Your task to perform on an android device: change alarm snooze length Image 0: 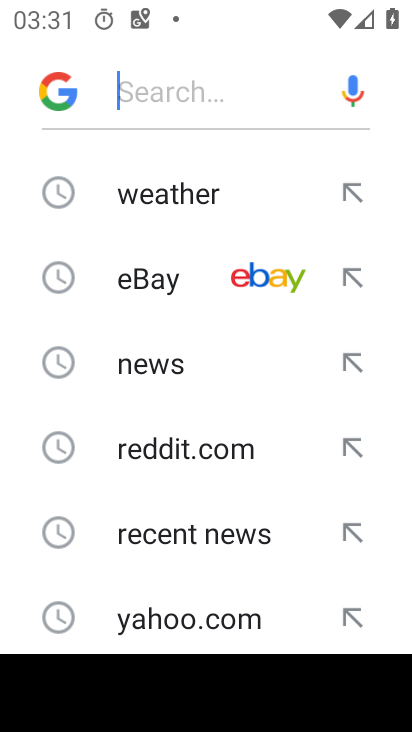
Step 0: press home button
Your task to perform on an android device: change alarm snooze length Image 1: 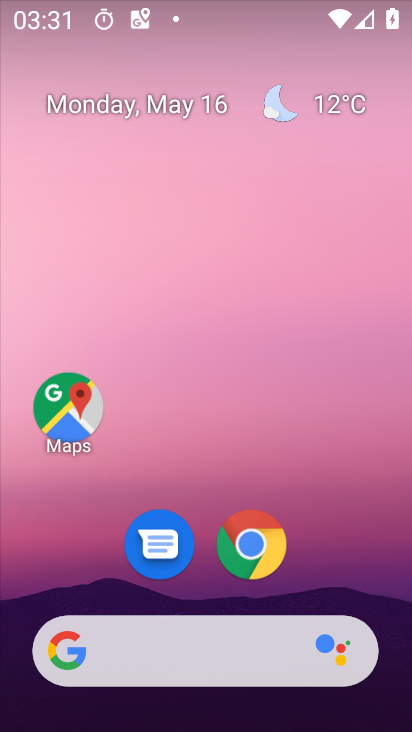
Step 1: drag from (189, 690) to (216, 117)
Your task to perform on an android device: change alarm snooze length Image 2: 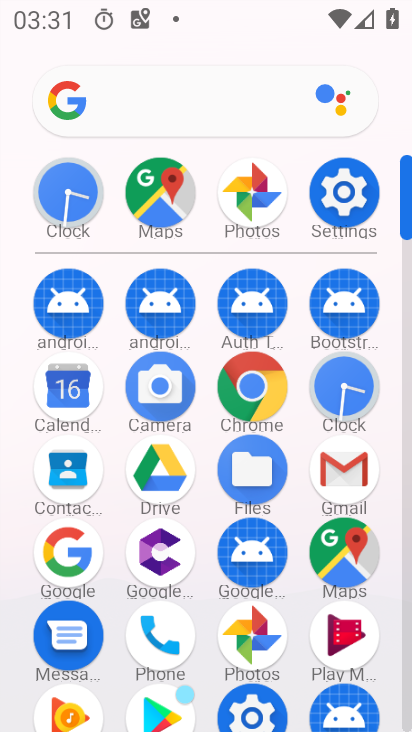
Step 2: click (348, 391)
Your task to perform on an android device: change alarm snooze length Image 3: 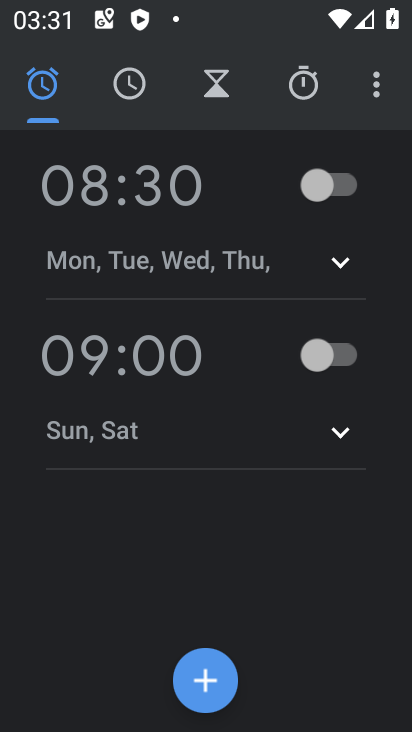
Step 3: click (378, 97)
Your task to perform on an android device: change alarm snooze length Image 4: 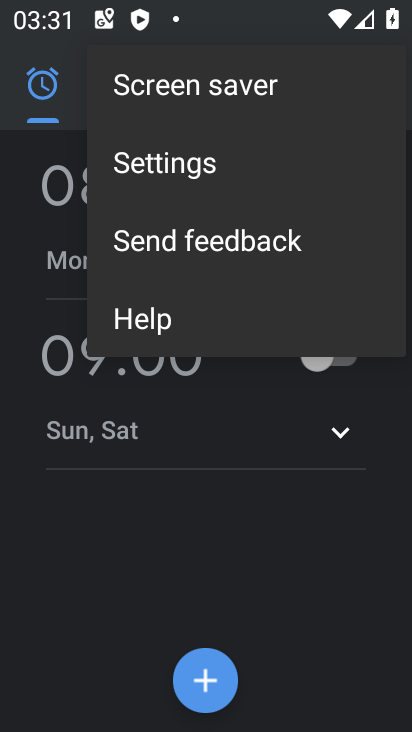
Step 4: click (180, 152)
Your task to perform on an android device: change alarm snooze length Image 5: 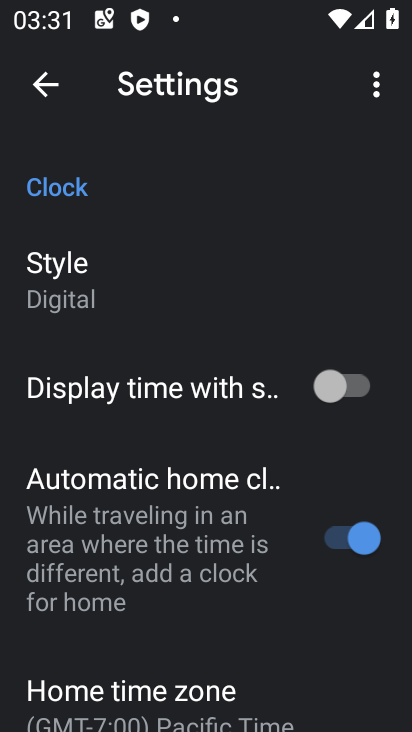
Step 5: drag from (140, 623) to (138, 207)
Your task to perform on an android device: change alarm snooze length Image 6: 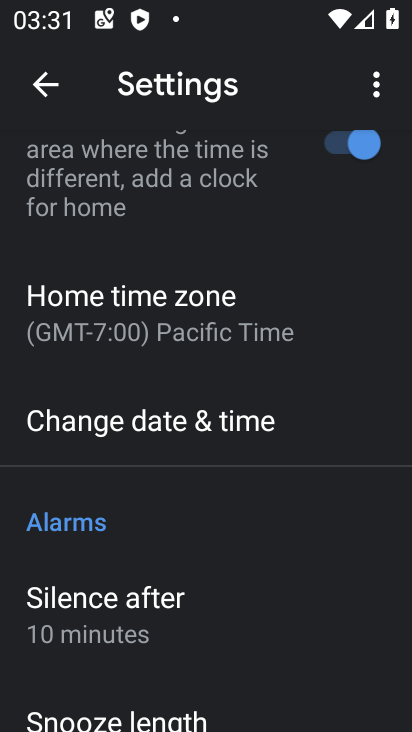
Step 6: drag from (198, 570) to (191, 239)
Your task to perform on an android device: change alarm snooze length Image 7: 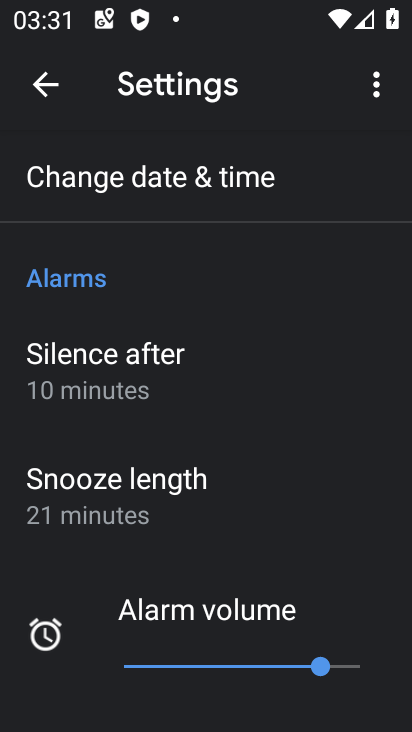
Step 7: click (130, 481)
Your task to perform on an android device: change alarm snooze length Image 8: 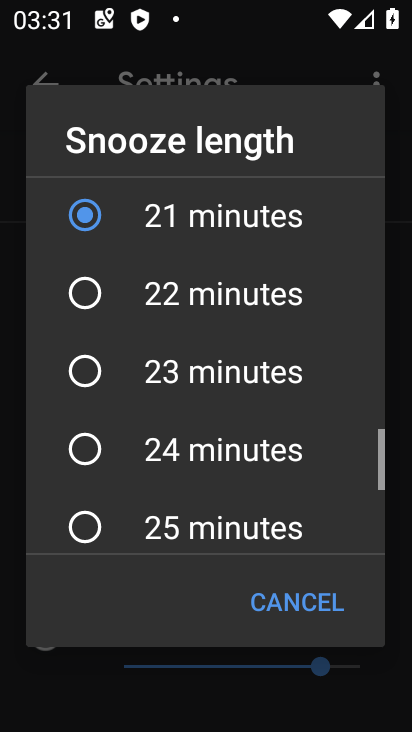
Step 8: click (88, 449)
Your task to perform on an android device: change alarm snooze length Image 9: 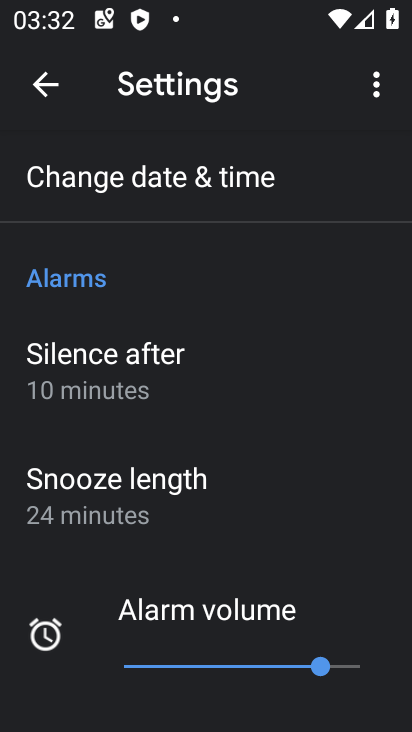
Step 9: task complete